Your task to perform on an android device: Open eBay Image 0: 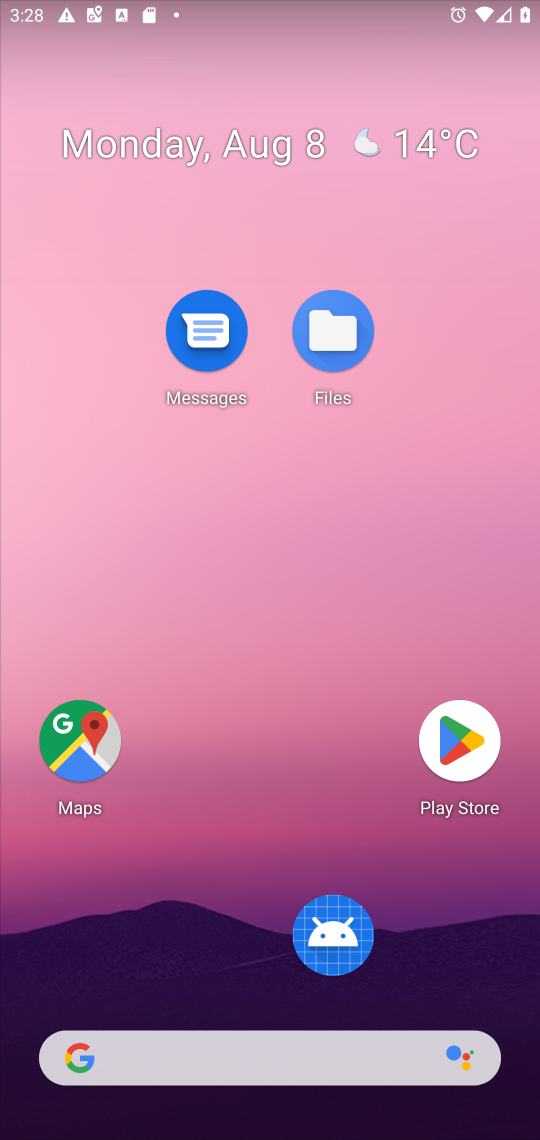
Step 0: drag from (234, 1043) to (99, 144)
Your task to perform on an android device: Open eBay Image 1: 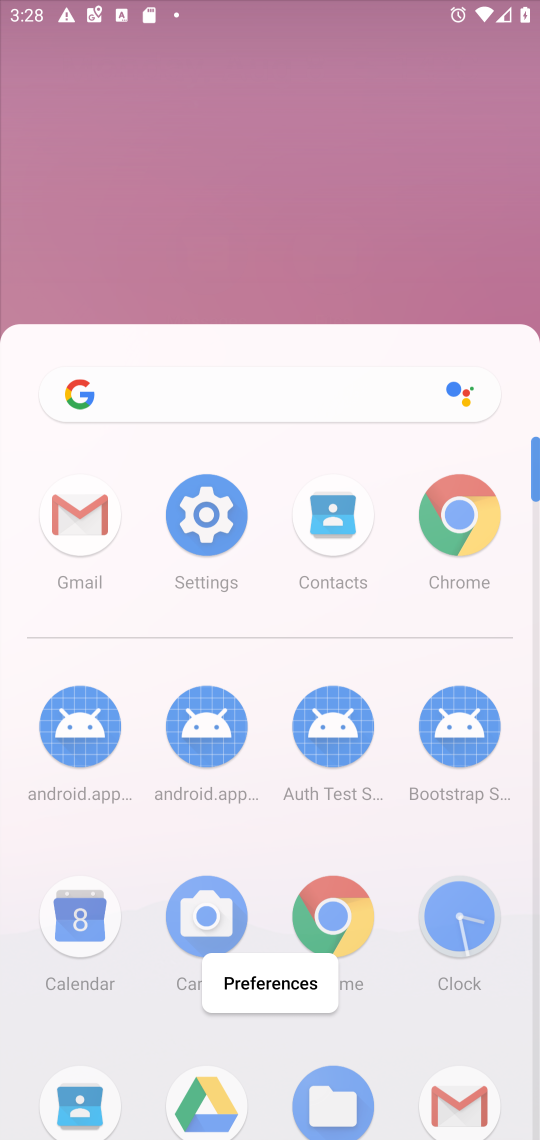
Step 1: click (99, 144)
Your task to perform on an android device: Open eBay Image 2: 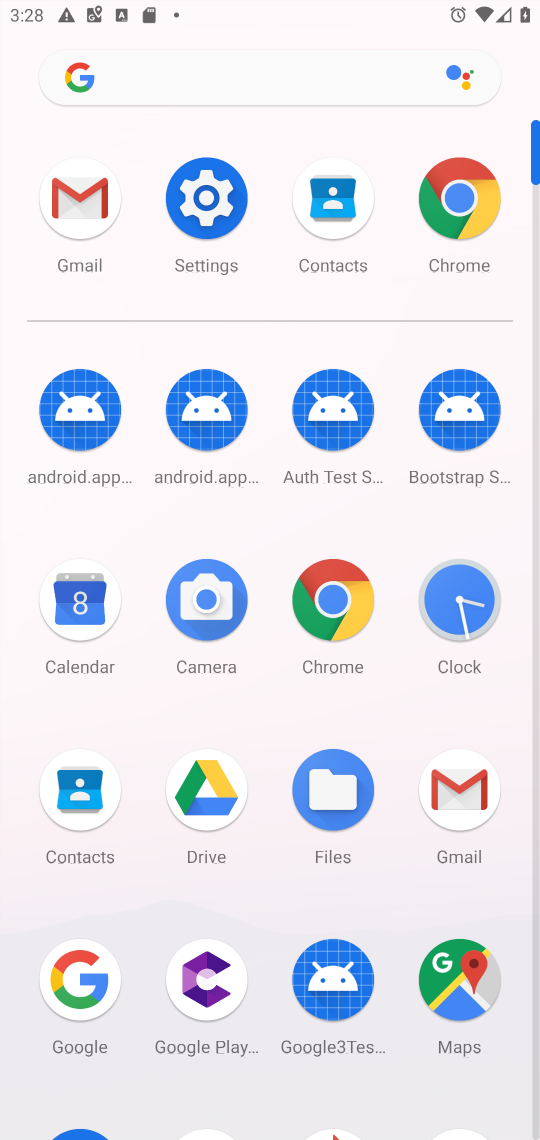
Step 2: click (336, 626)
Your task to perform on an android device: Open eBay Image 3: 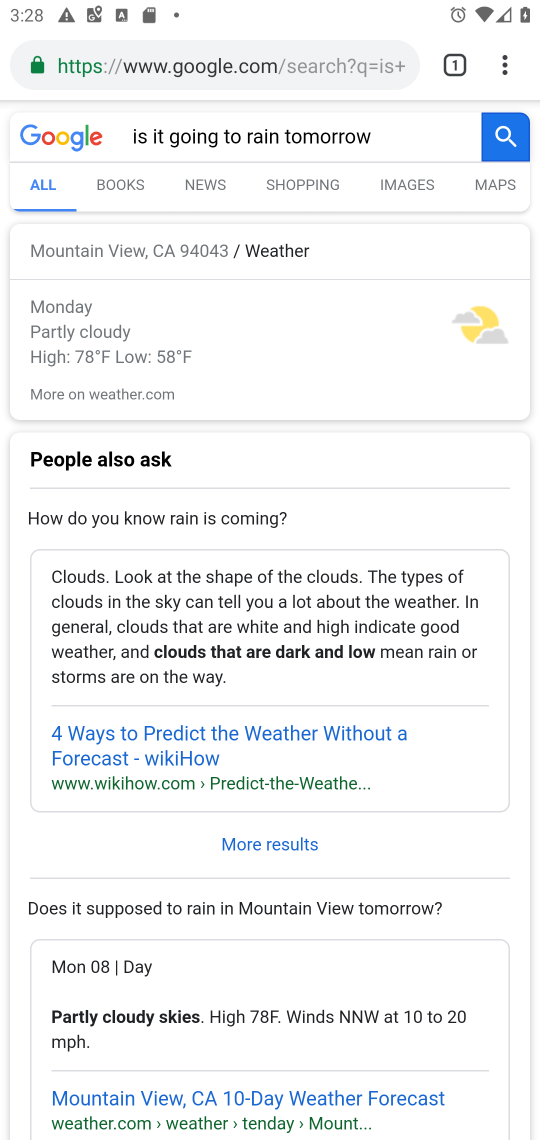
Step 3: click (326, 59)
Your task to perform on an android device: Open eBay Image 4: 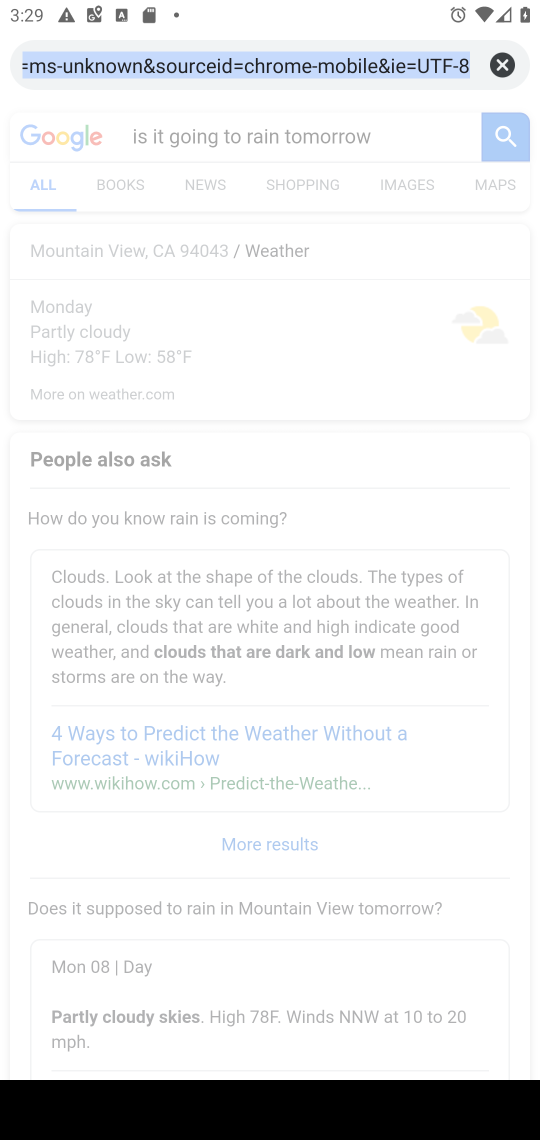
Step 4: type "ebay"
Your task to perform on an android device: Open eBay Image 5: 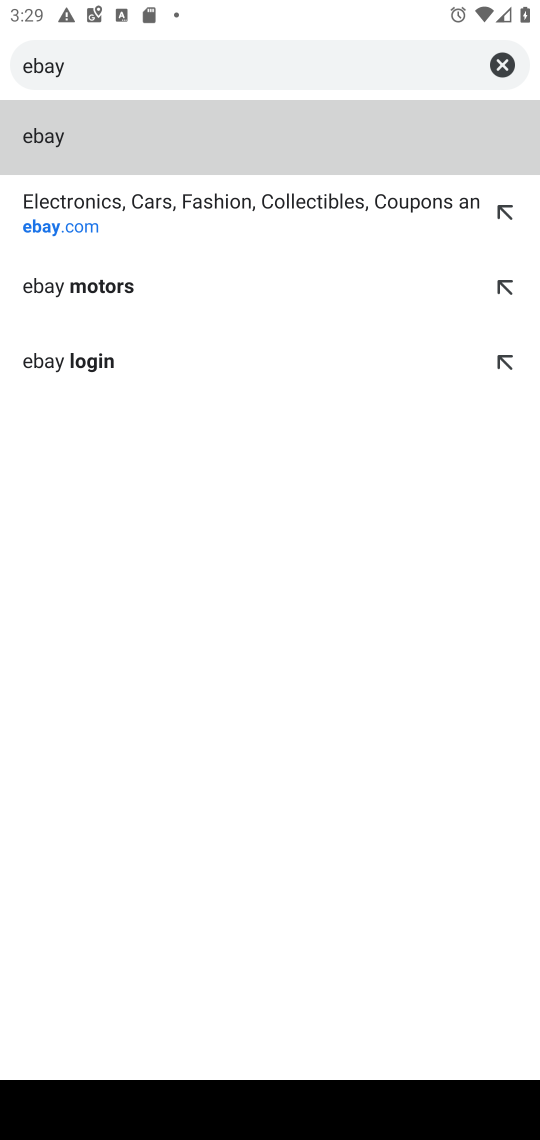
Step 5: click (257, 208)
Your task to perform on an android device: Open eBay Image 6: 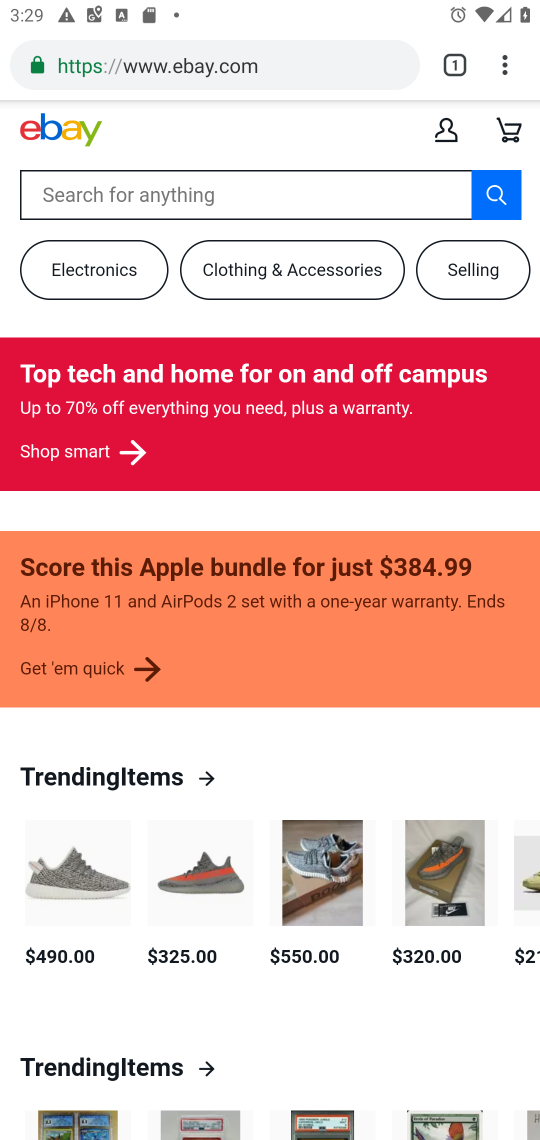
Step 6: task complete